Your task to perform on an android device: Search for seafood restaurants on Google Maps Image 0: 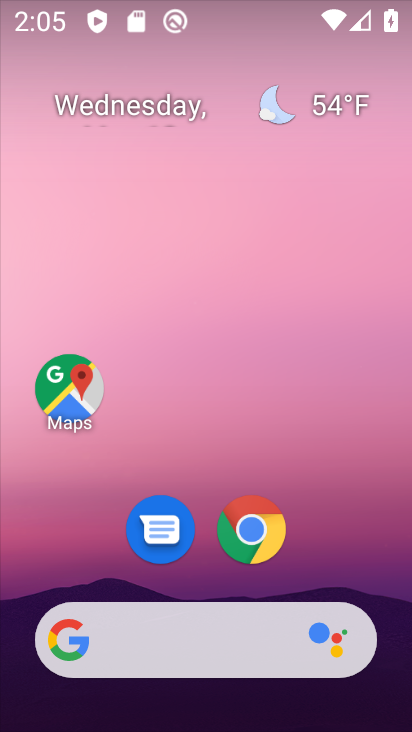
Step 0: click (75, 394)
Your task to perform on an android device: Search for seafood restaurants on Google Maps Image 1: 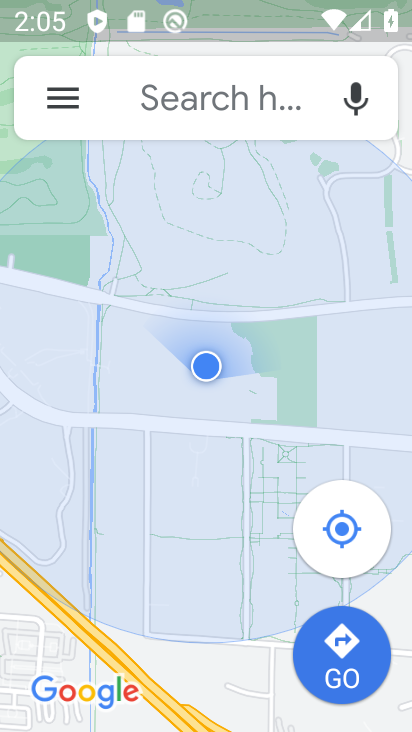
Step 1: click (183, 103)
Your task to perform on an android device: Search for seafood restaurants on Google Maps Image 2: 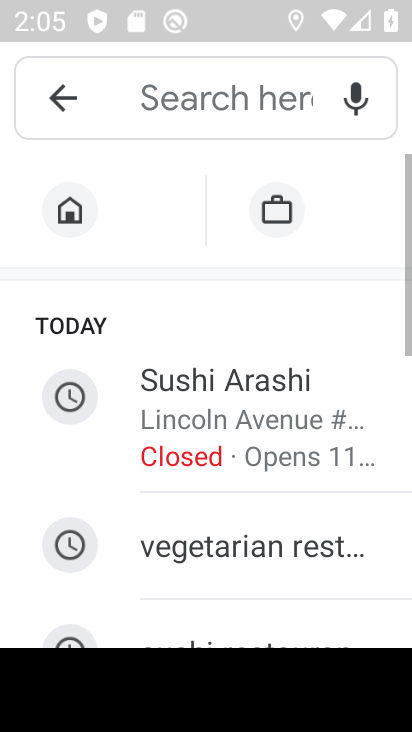
Step 2: drag from (193, 577) to (253, 163)
Your task to perform on an android device: Search for seafood restaurants on Google Maps Image 3: 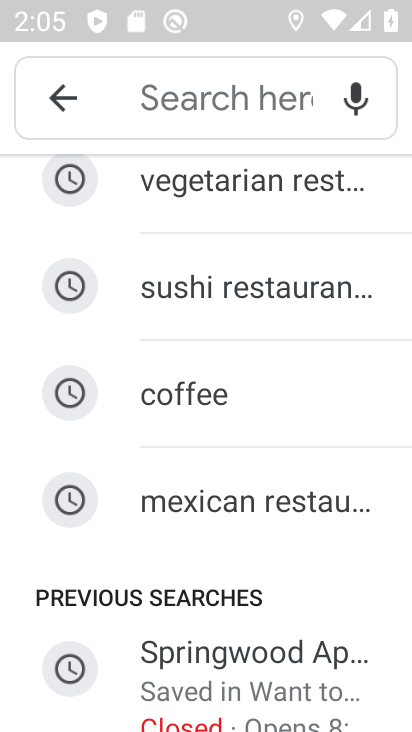
Step 3: drag from (226, 262) to (179, 292)
Your task to perform on an android device: Search for seafood restaurants on Google Maps Image 4: 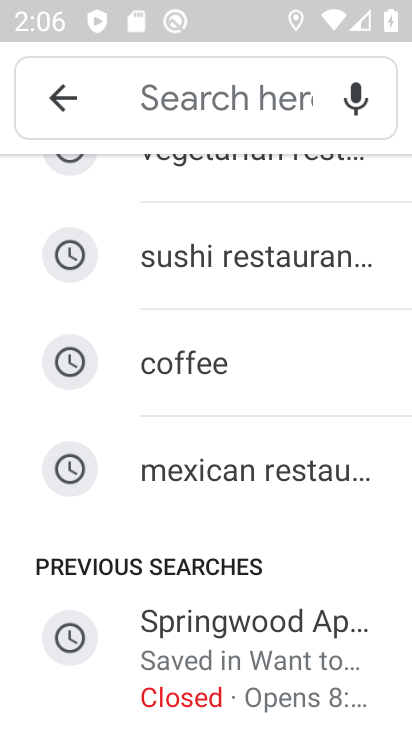
Step 4: click (167, 110)
Your task to perform on an android device: Search for seafood restaurants on Google Maps Image 5: 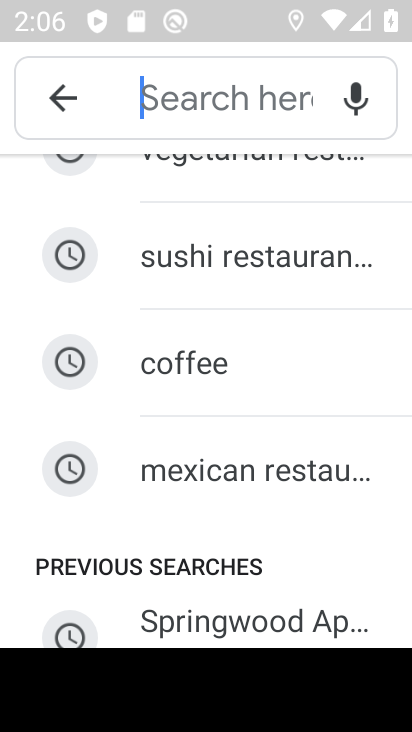
Step 5: type "seafood resturant"
Your task to perform on an android device: Search for seafood restaurants on Google Maps Image 6: 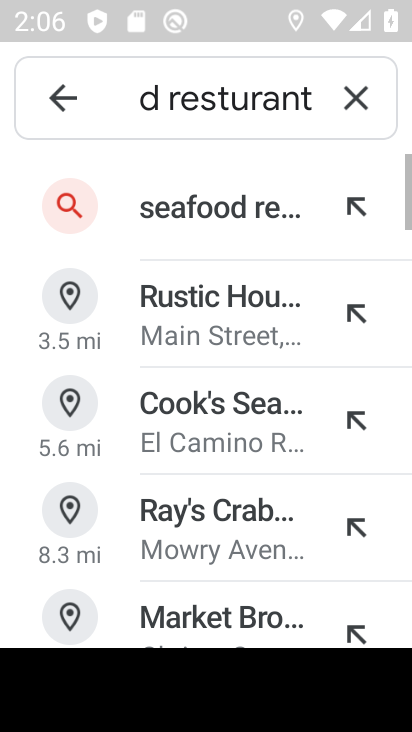
Step 6: click (188, 217)
Your task to perform on an android device: Search for seafood restaurants on Google Maps Image 7: 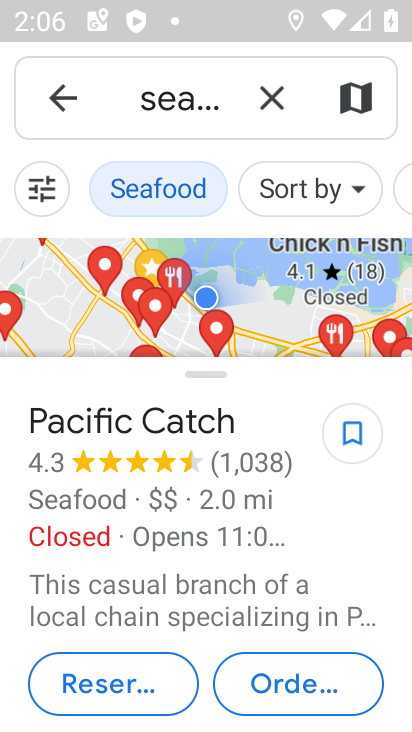
Step 7: task complete